Your task to perform on an android device: see creations saved in the google photos Image 0: 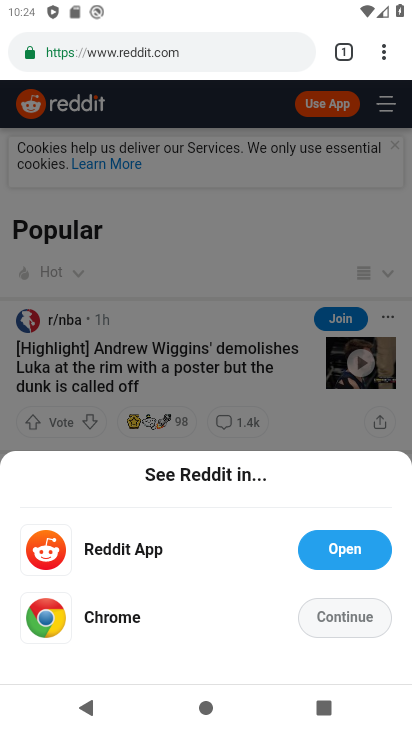
Step 0: press home button
Your task to perform on an android device: see creations saved in the google photos Image 1: 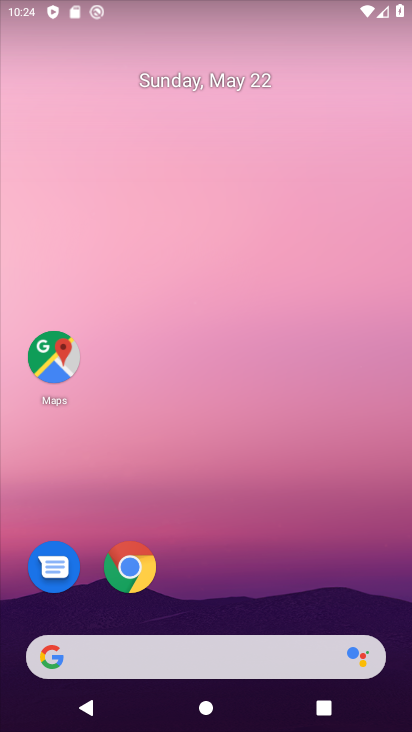
Step 1: drag from (354, 611) to (283, 44)
Your task to perform on an android device: see creations saved in the google photos Image 2: 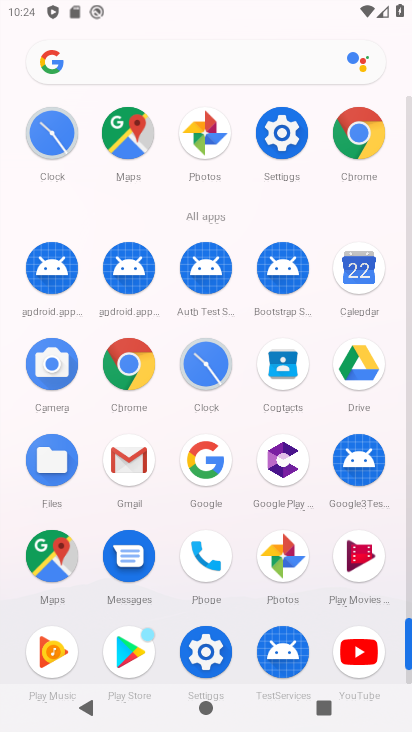
Step 2: click (284, 557)
Your task to perform on an android device: see creations saved in the google photos Image 3: 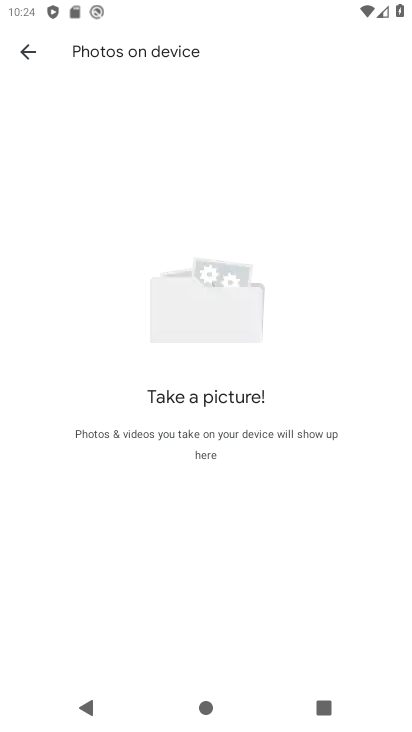
Step 3: task complete